Your task to perform on an android device: Open accessibility settings Image 0: 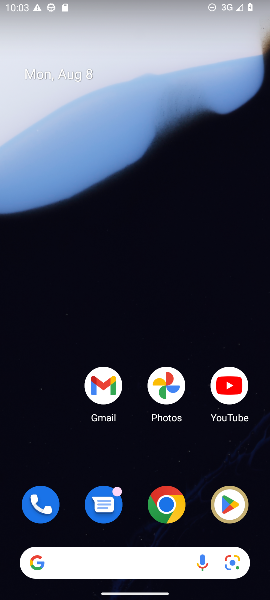
Step 0: drag from (125, 444) to (80, 5)
Your task to perform on an android device: Open accessibility settings Image 1: 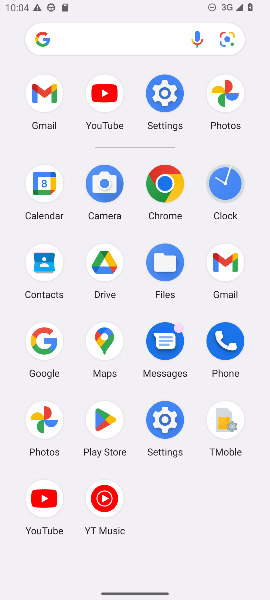
Step 1: click (170, 437)
Your task to perform on an android device: Open accessibility settings Image 2: 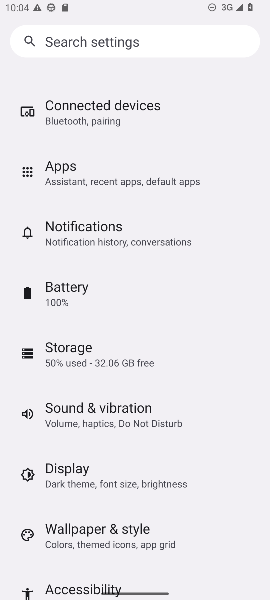
Step 2: drag from (119, 478) to (130, 225)
Your task to perform on an android device: Open accessibility settings Image 3: 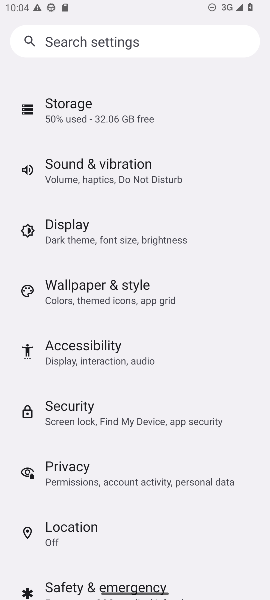
Step 3: click (97, 356)
Your task to perform on an android device: Open accessibility settings Image 4: 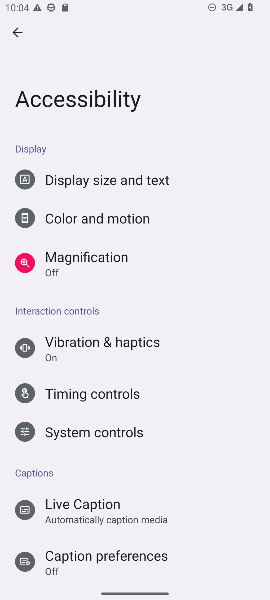
Step 4: task complete